Your task to perform on an android device: toggle sleep mode Image 0: 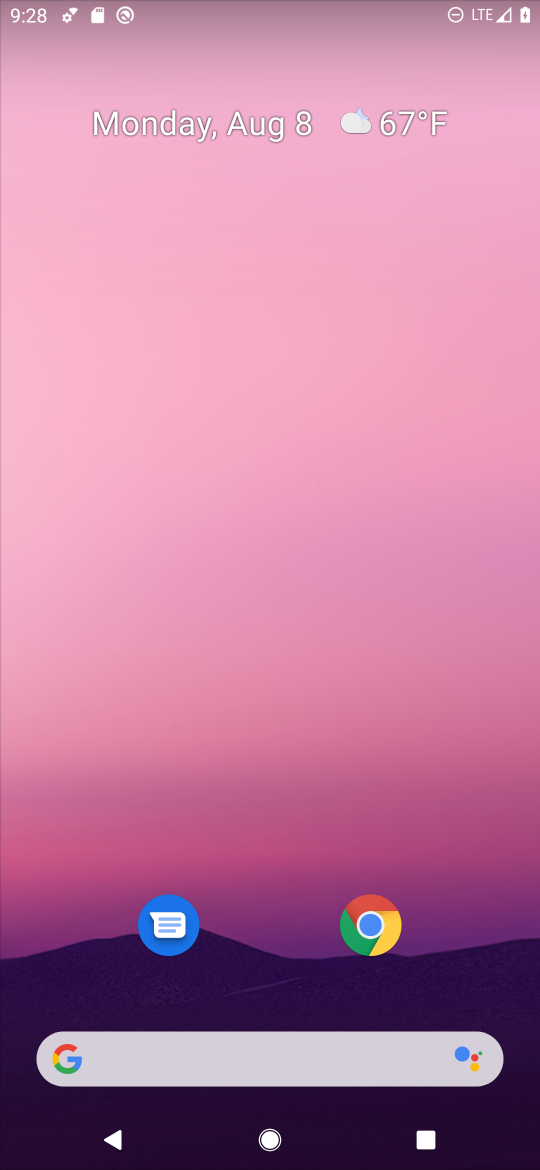
Step 0: press home button
Your task to perform on an android device: toggle sleep mode Image 1: 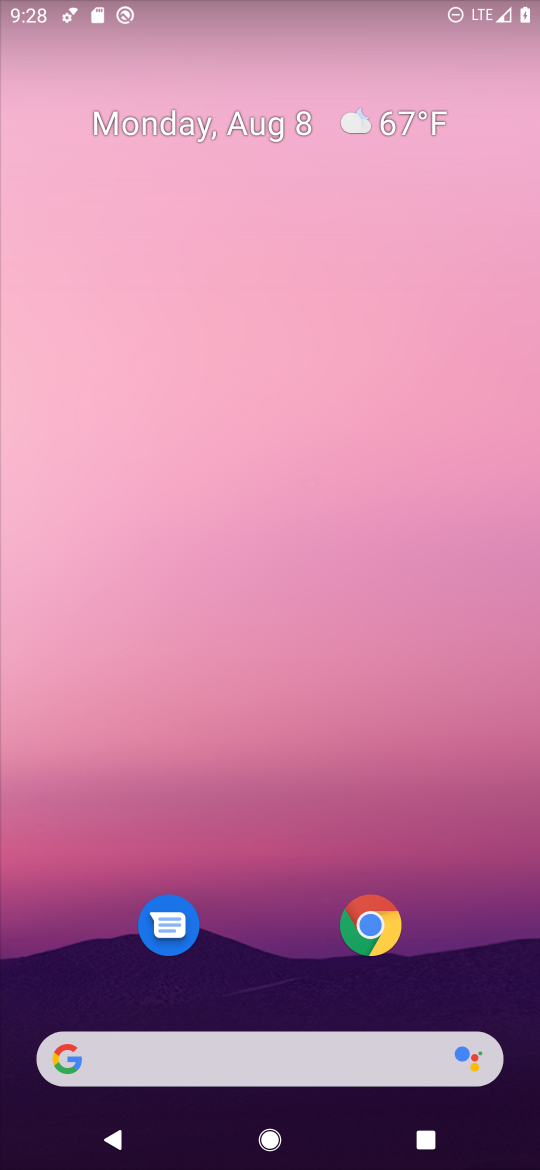
Step 1: press home button
Your task to perform on an android device: toggle sleep mode Image 2: 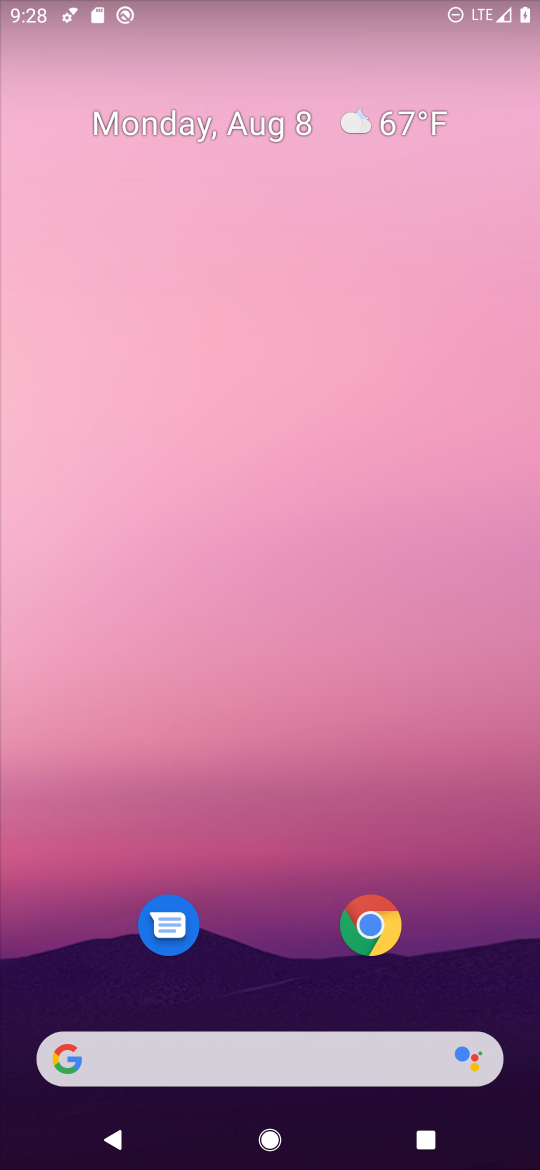
Step 2: drag from (246, 945) to (278, 114)
Your task to perform on an android device: toggle sleep mode Image 3: 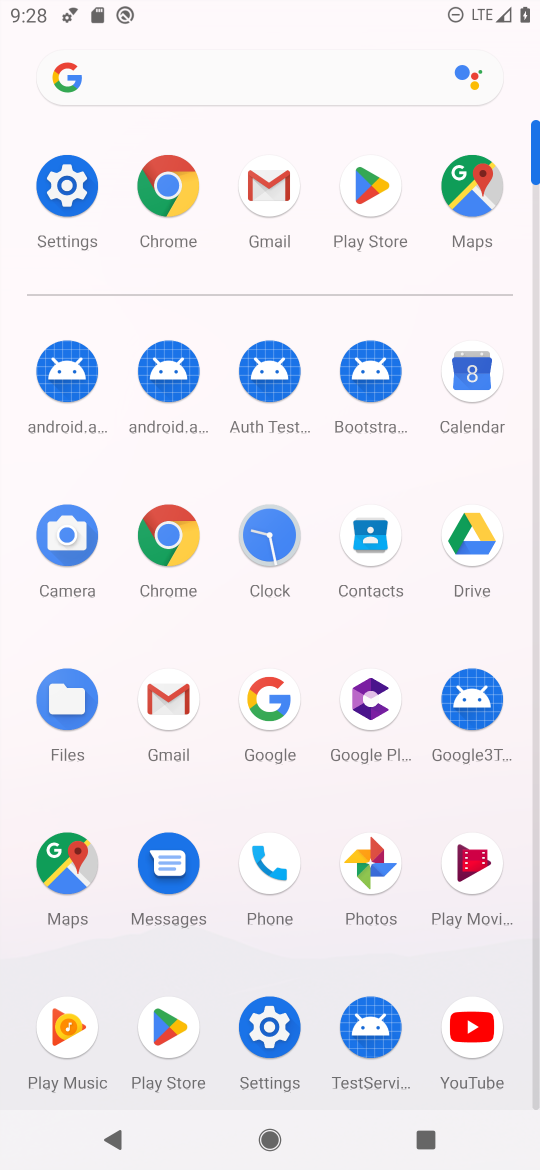
Step 3: click (273, 1015)
Your task to perform on an android device: toggle sleep mode Image 4: 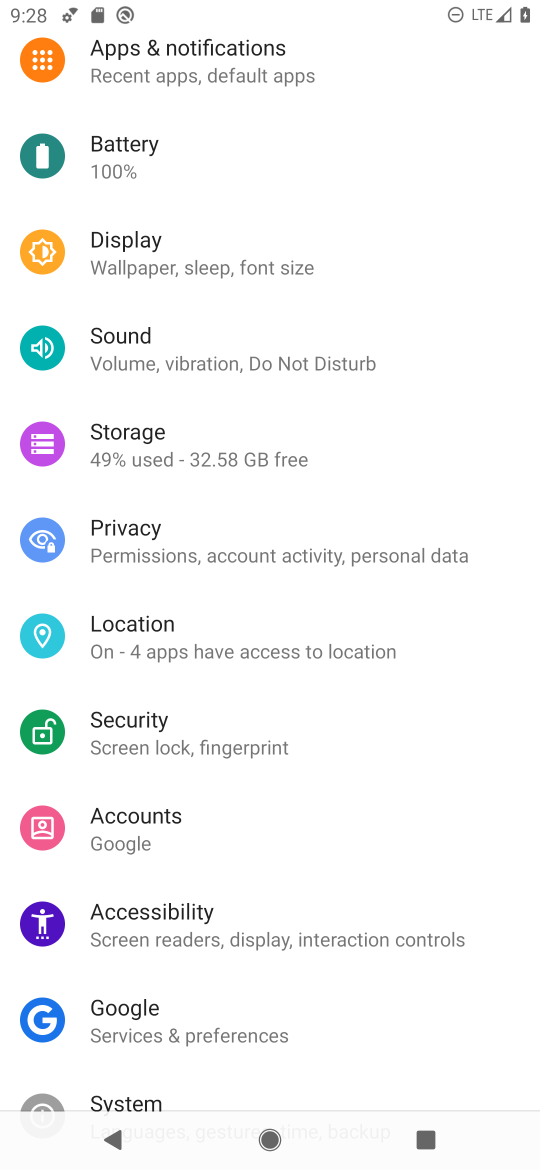
Step 4: click (248, 255)
Your task to perform on an android device: toggle sleep mode Image 5: 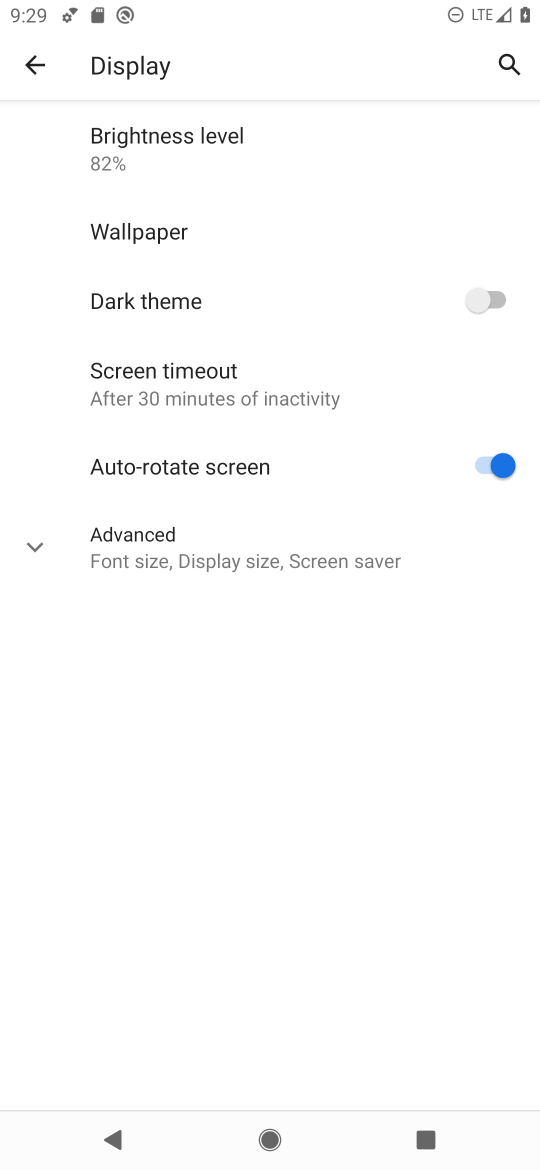
Step 5: click (218, 386)
Your task to perform on an android device: toggle sleep mode Image 6: 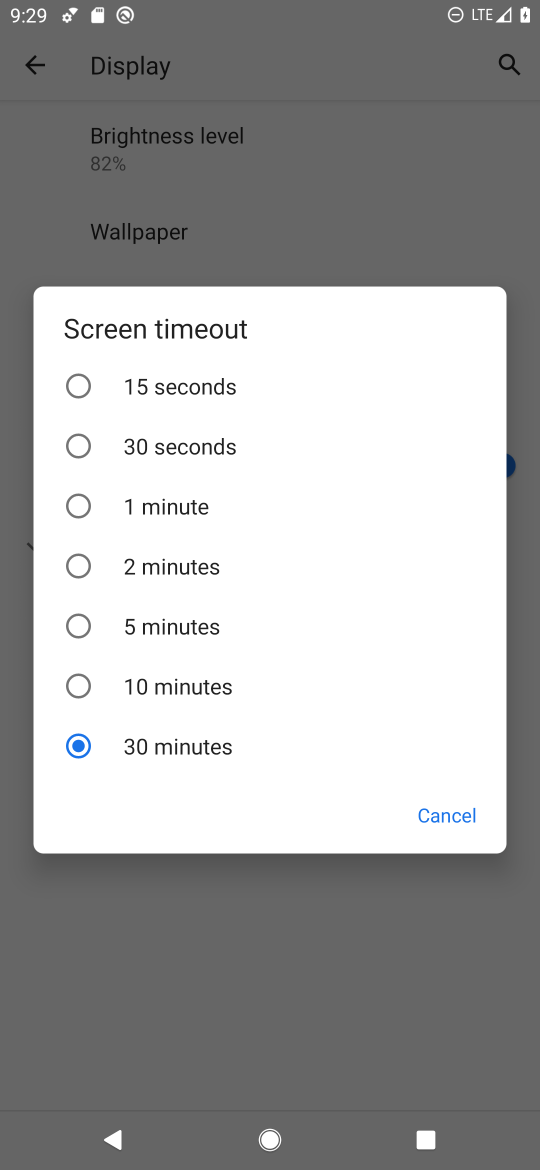
Step 6: click (95, 700)
Your task to perform on an android device: toggle sleep mode Image 7: 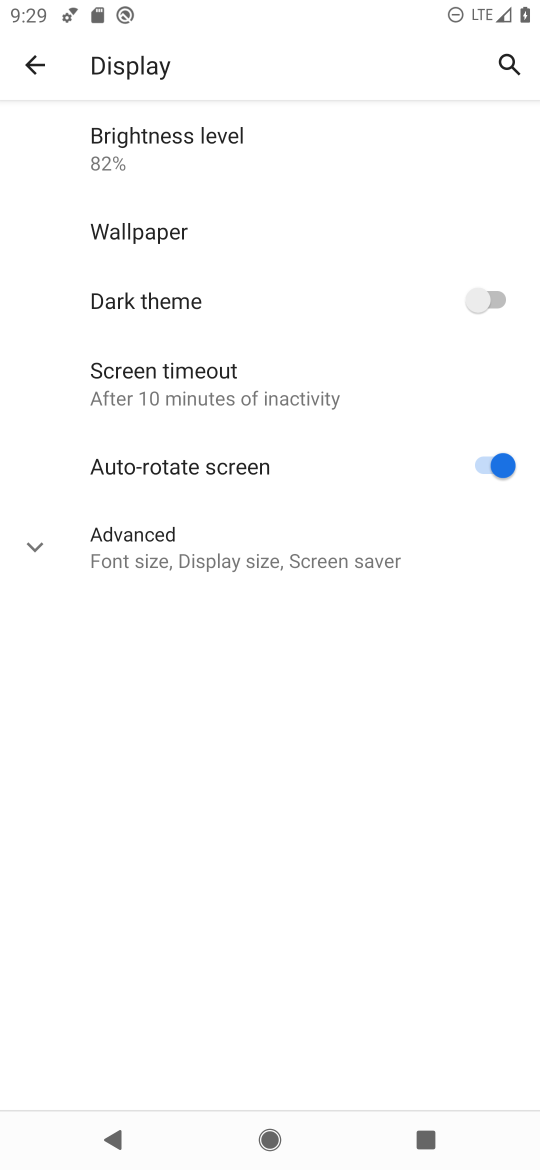
Step 7: task complete